Your task to perform on an android device: Is it going to rain today? Image 0: 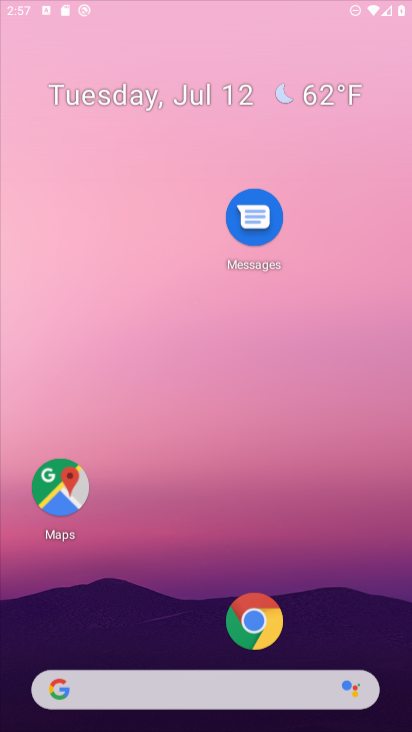
Step 0: press home button
Your task to perform on an android device: Is it going to rain today? Image 1: 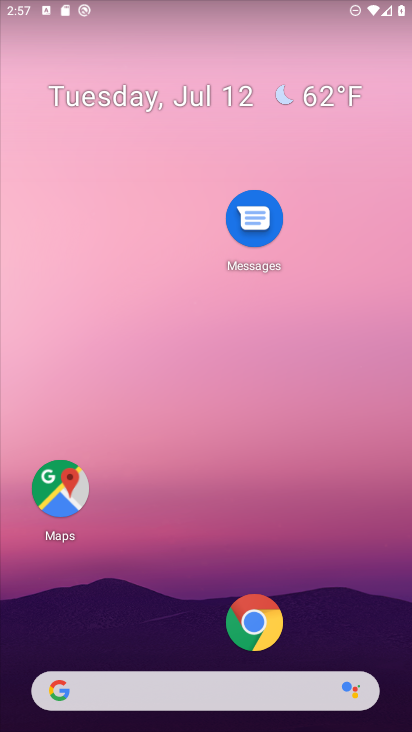
Step 1: click (169, 691)
Your task to perform on an android device: Is it going to rain today? Image 2: 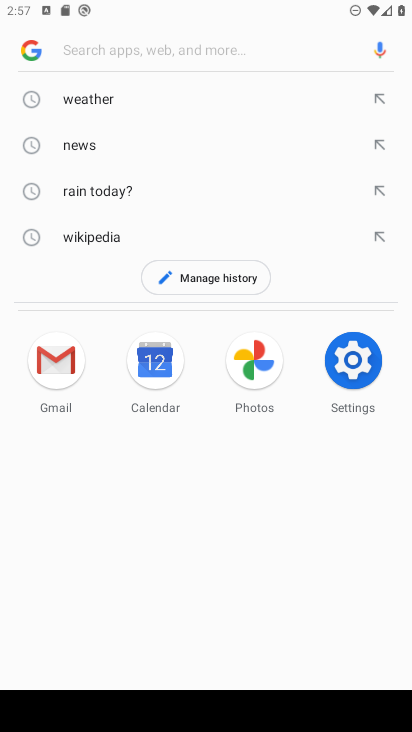
Step 2: click (118, 97)
Your task to perform on an android device: Is it going to rain today? Image 3: 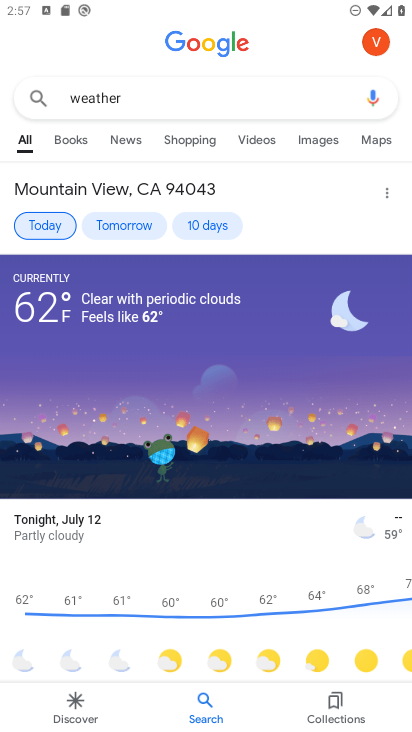
Step 3: task complete